Your task to perform on an android device: visit the assistant section in the google photos Image 0: 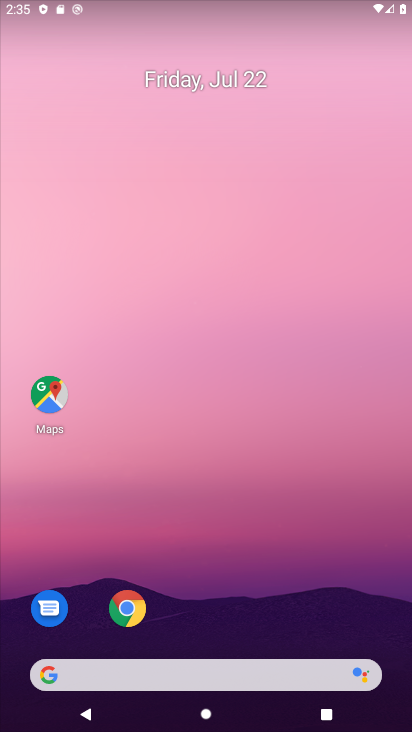
Step 0: drag from (295, 620) to (317, 174)
Your task to perform on an android device: visit the assistant section in the google photos Image 1: 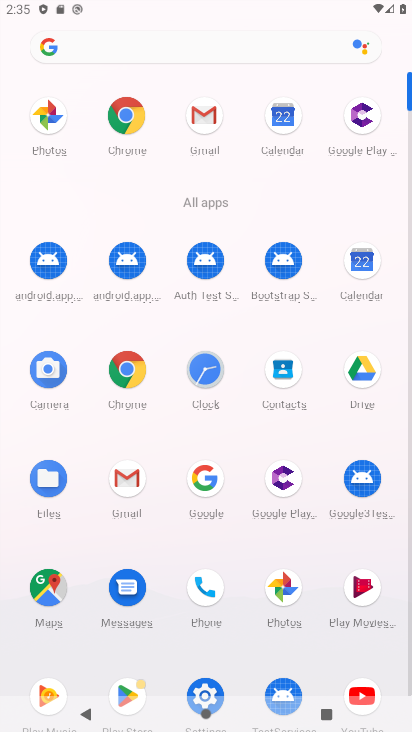
Step 1: click (281, 598)
Your task to perform on an android device: visit the assistant section in the google photos Image 2: 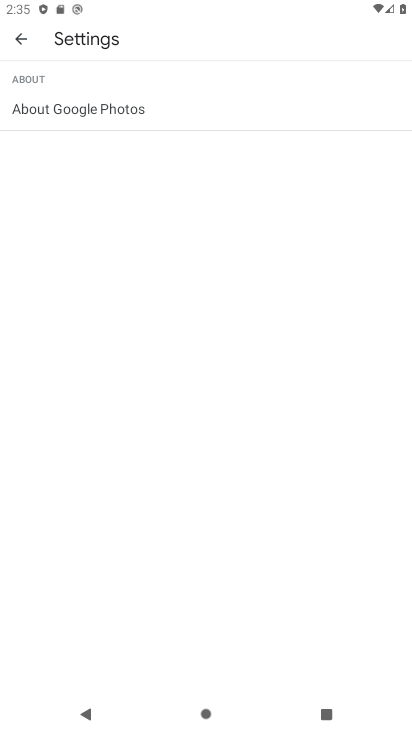
Step 2: click (21, 42)
Your task to perform on an android device: visit the assistant section in the google photos Image 3: 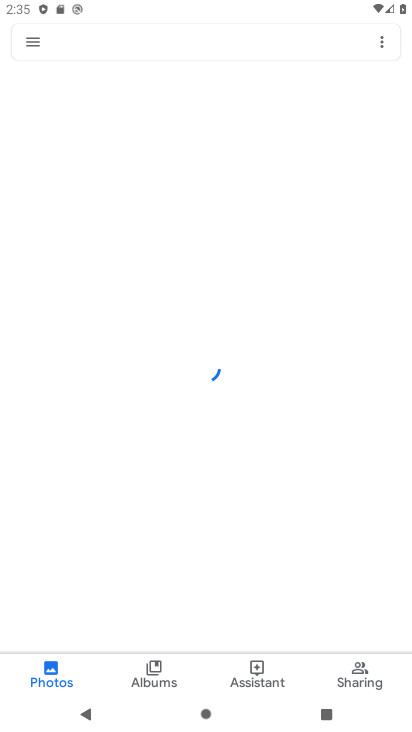
Step 3: click (271, 676)
Your task to perform on an android device: visit the assistant section in the google photos Image 4: 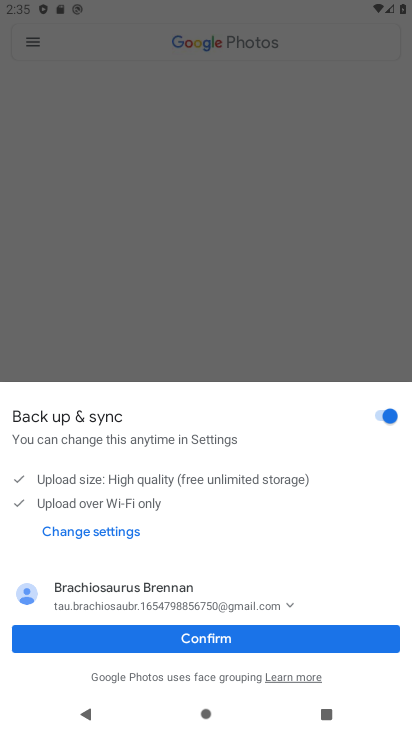
Step 4: click (208, 638)
Your task to perform on an android device: visit the assistant section in the google photos Image 5: 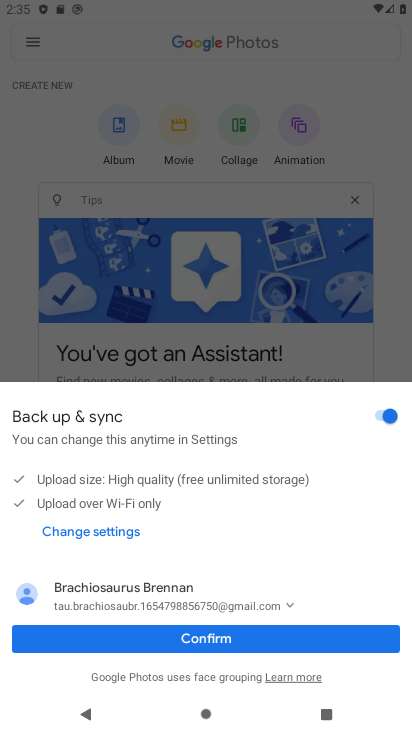
Step 5: click (208, 638)
Your task to perform on an android device: visit the assistant section in the google photos Image 6: 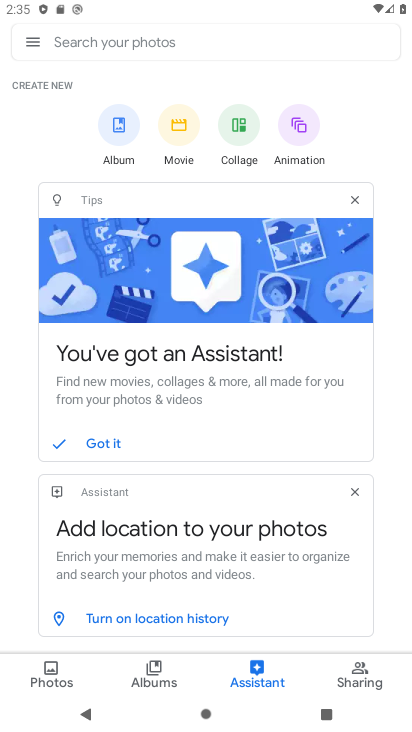
Step 6: task complete